Your task to perform on an android device: Is it going to rain this weekend? Image 0: 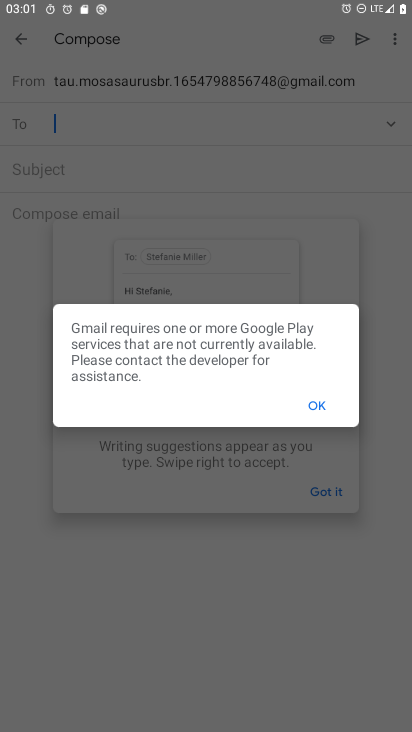
Step 0: press home button
Your task to perform on an android device: Is it going to rain this weekend? Image 1: 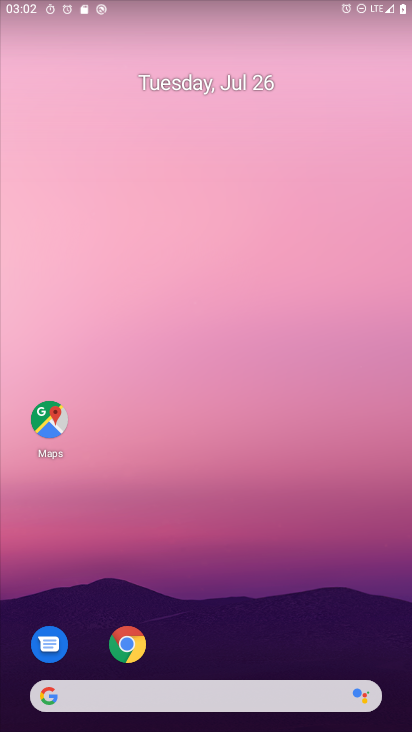
Step 1: click (193, 694)
Your task to perform on an android device: Is it going to rain this weekend? Image 2: 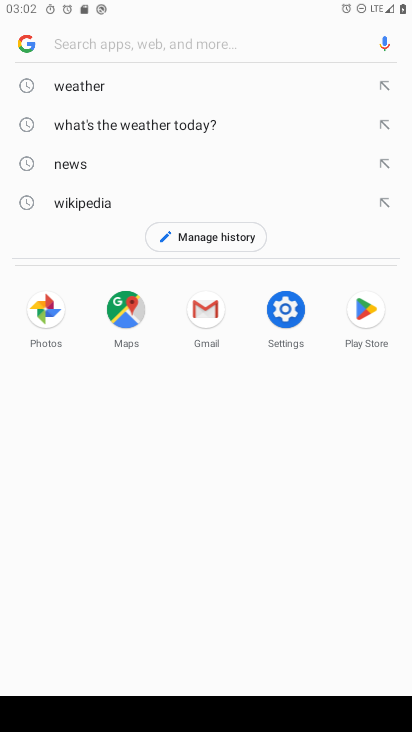
Step 2: click (79, 95)
Your task to perform on an android device: Is it going to rain this weekend? Image 3: 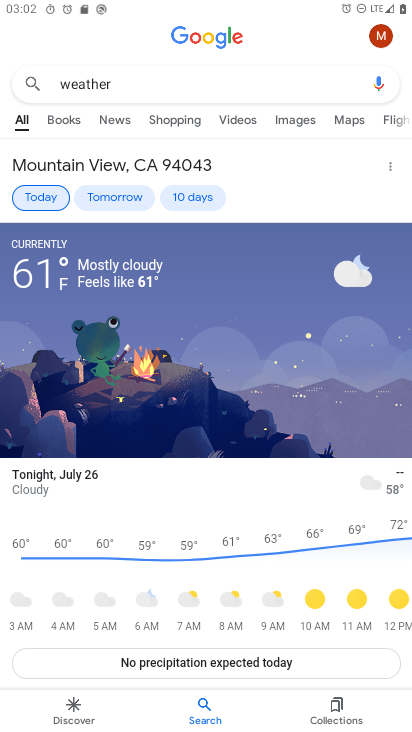
Step 3: click (187, 202)
Your task to perform on an android device: Is it going to rain this weekend? Image 4: 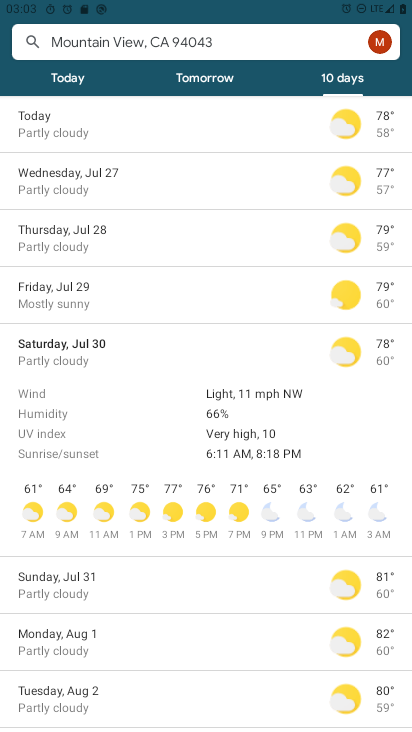
Step 4: click (65, 573)
Your task to perform on an android device: Is it going to rain this weekend? Image 5: 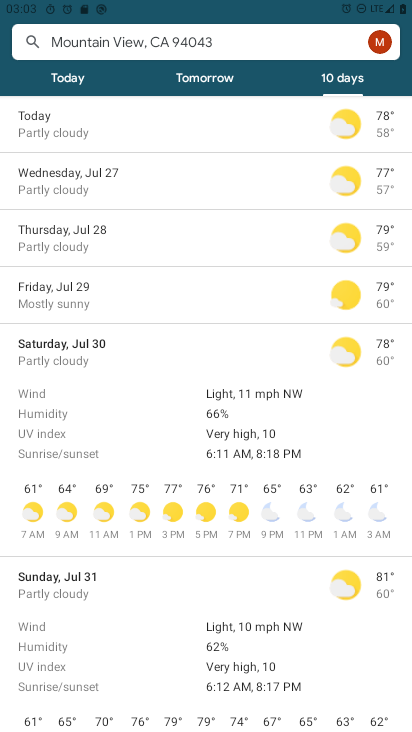
Step 5: task complete